Your task to perform on an android device: empty trash in the gmail app Image 0: 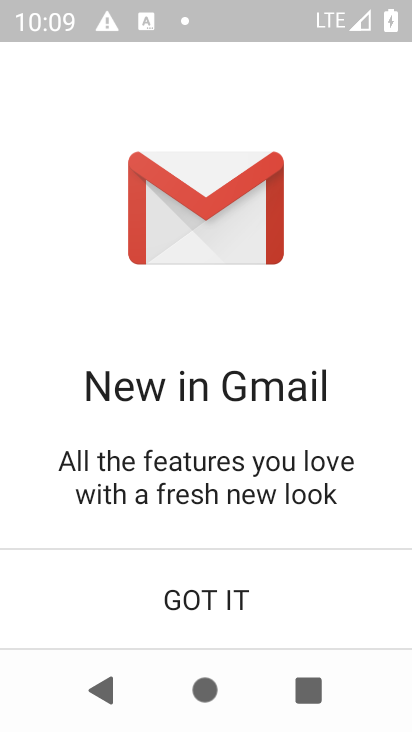
Step 0: click (231, 603)
Your task to perform on an android device: empty trash in the gmail app Image 1: 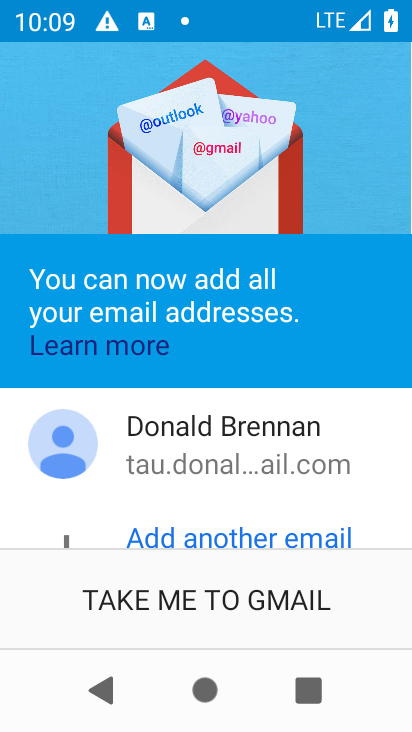
Step 1: click (198, 609)
Your task to perform on an android device: empty trash in the gmail app Image 2: 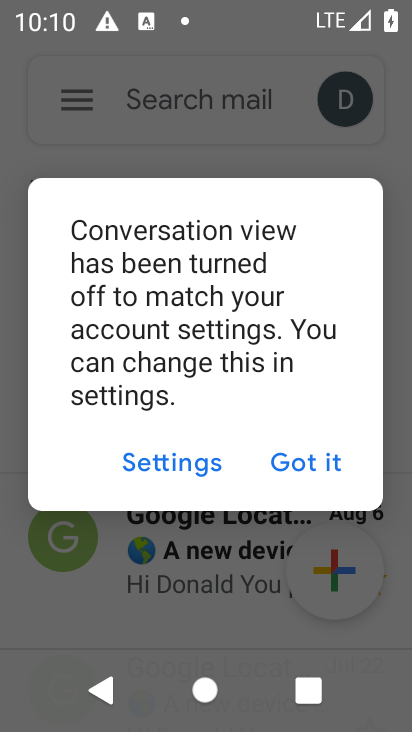
Step 2: click (329, 458)
Your task to perform on an android device: empty trash in the gmail app Image 3: 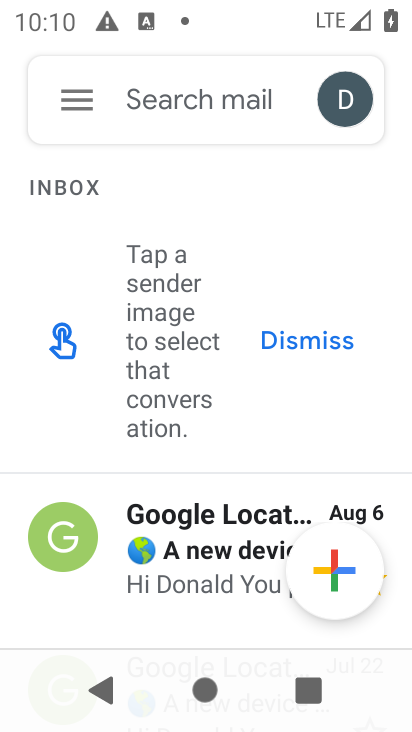
Step 3: click (71, 104)
Your task to perform on an android device: empty trash in the gmail app Image 4: 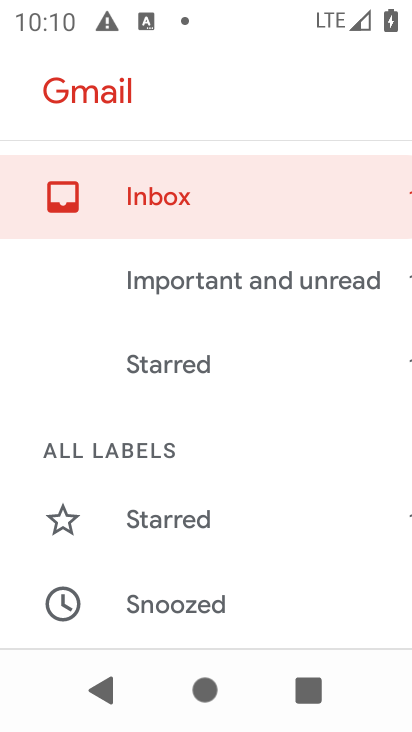
Step 4: drag from (205, 568) to (256, 70)
Your task to perform on an android device: empty trash in the gmail app Image 5: 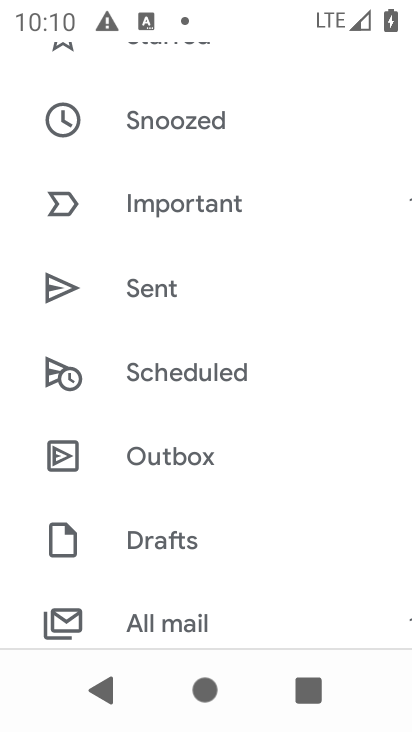
Step 5: drag from (199, 582) to (270, 4)
Your task to perform on an android device: empty trash in the gmail app Image 6: 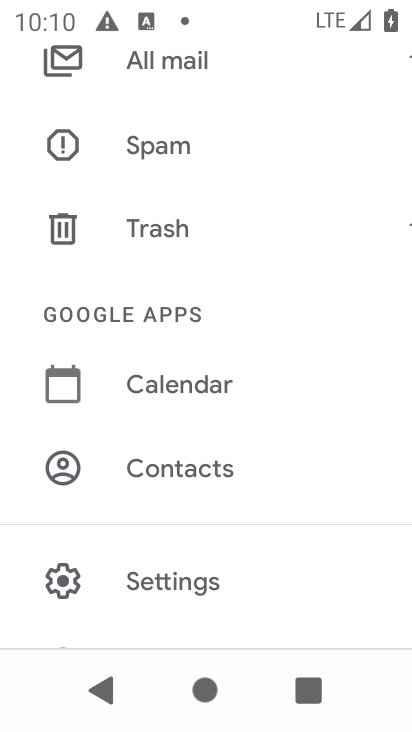
Step 6: click (153, 226)
Your task to perform on an android device: empty trash in the gmail app Image 7: 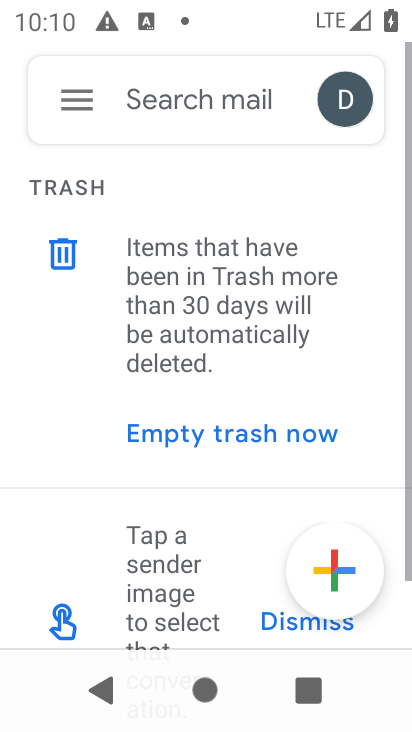
Step 7: click (192, 437)
Your task to perform on an android device: empty trash in the gmail app Image 8: 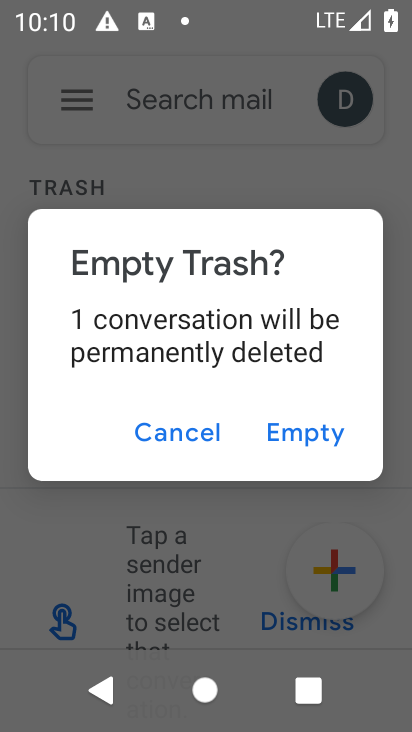
Step 8: click (320, 435)
Your task to perform on an android device: empty trash in the gmail app Image 9: 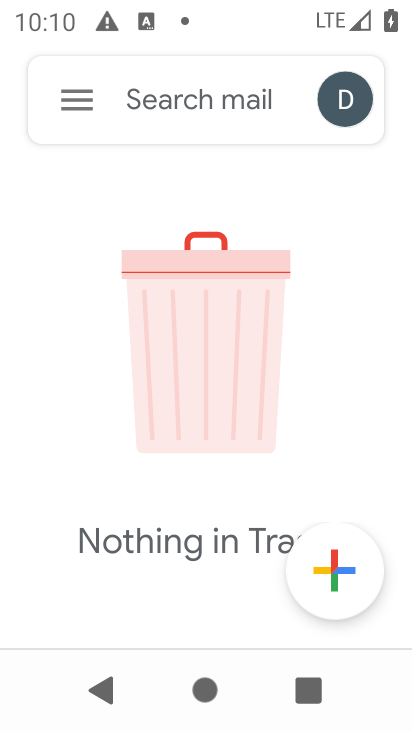
Step 9: task complete